Your task to perform on an android device: Open ESPN.com Image 0: 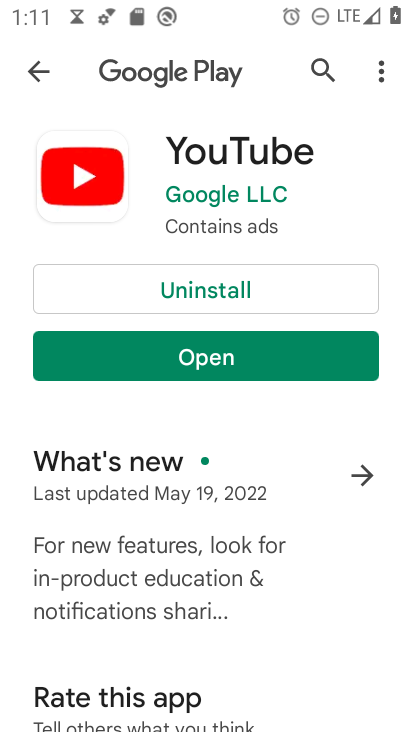
Step 0: press home button
Your task to perform on an android device: Open ESPN.com Image 1: 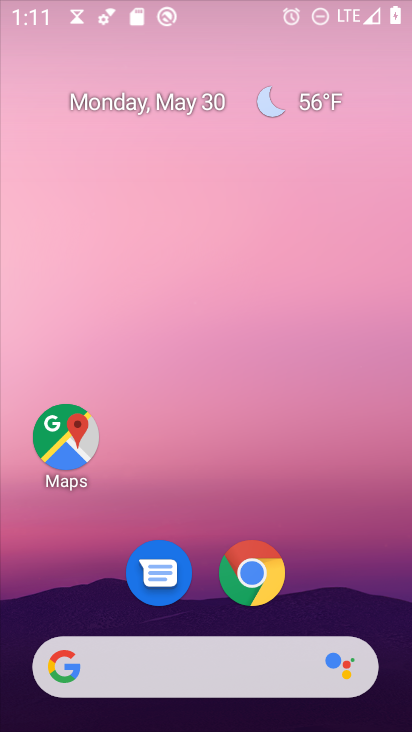
Step 1: drag from (276, 685) to (331, 0)
Your task to perform on an android device: Open ESPN.com Image 2: 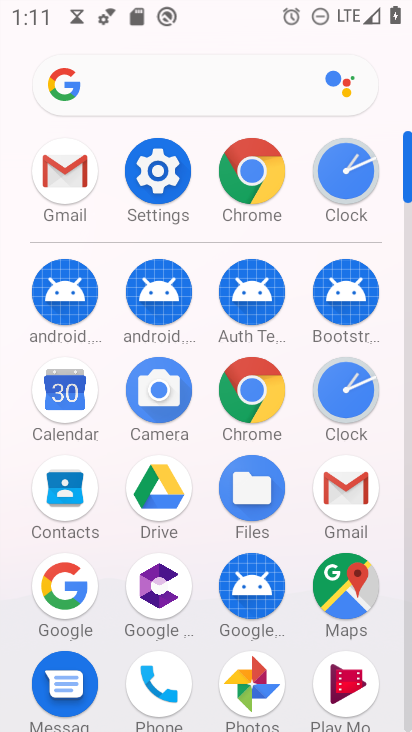
Step 2: click (255, 394)
Your task to perform on an android device: Open ESPN.com Image 3: 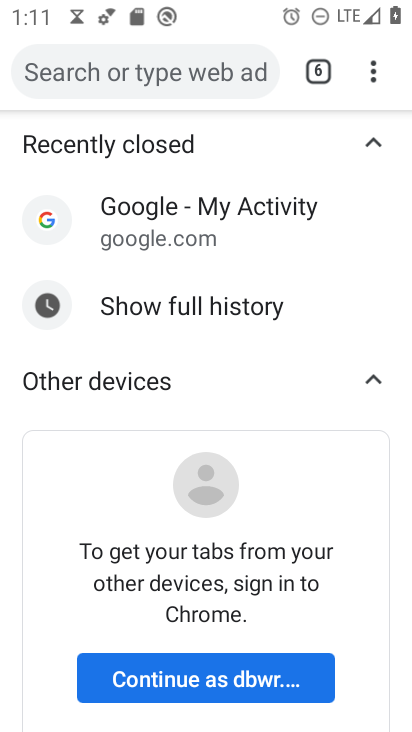
Step 3: click (47, 68)
Your task to perform on an android device: Open ESPN.com Image 4: 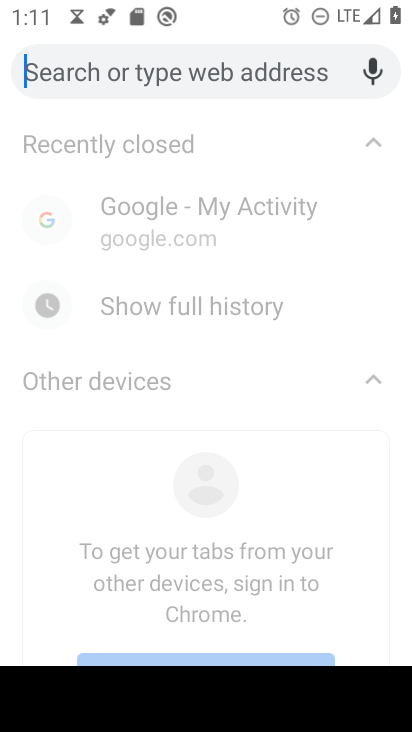
Step 4: type "espn.com"
Your task to perform on an android device: Open ESPN.com Image 5: 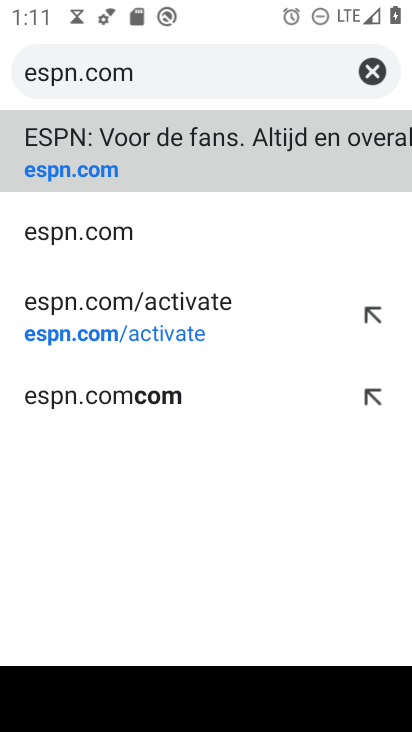
Step 5: click (326, 158)
Your task to perform on an android device: Open ESPN.com Image 6: 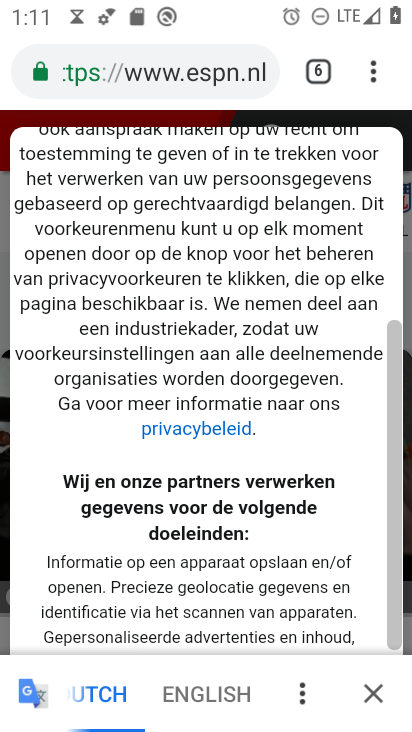
Step 6: task complete